Your task to perform on an android device: snooze an email in the gmail app Image 0: 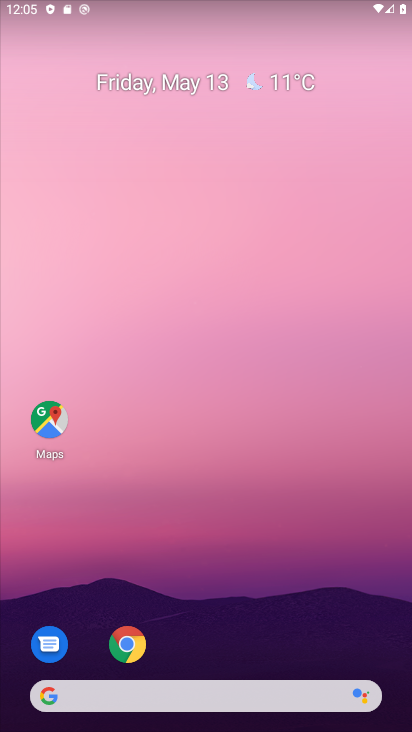
Step 0: drag from (209, 725) to (204, 243)
Your task to perform on an android device: snooze an email in the gmail app Image 1: 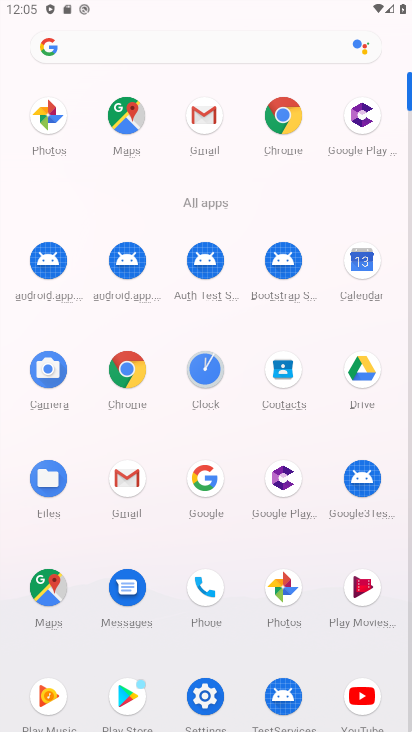
Step 1: click (128, 479)
Your task to perform on an android device: snooze an email in the gmail app Image 2: 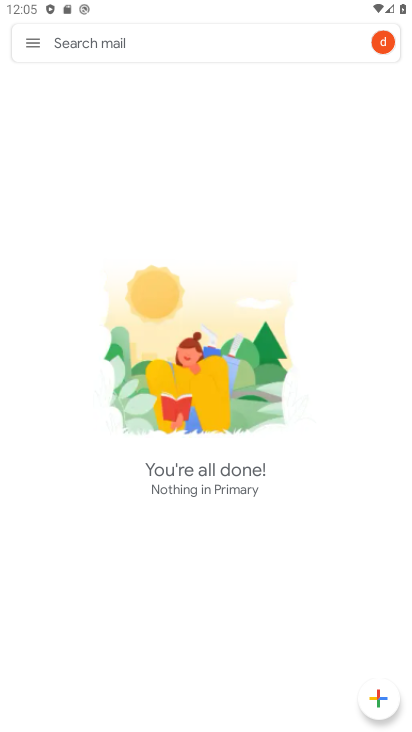
Step 2: click (31, 38)
Your task to perform on an android device: snooze an email in the gmail app Image 3: 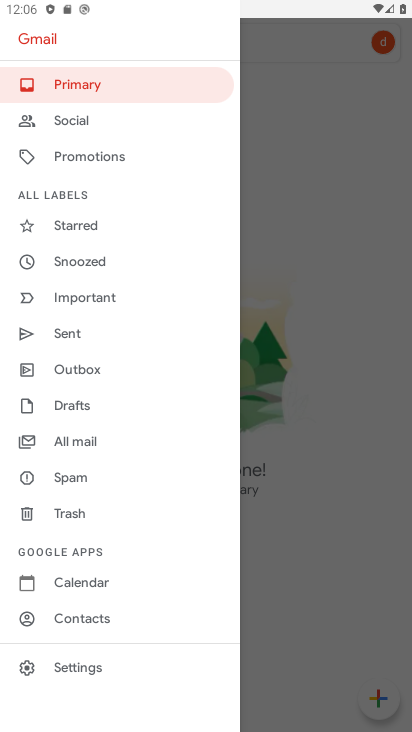
Step 3: drag from (80, 82) to (112, 509)
Your task to perform on an android device: snooze an email in the gmail app Image 4: 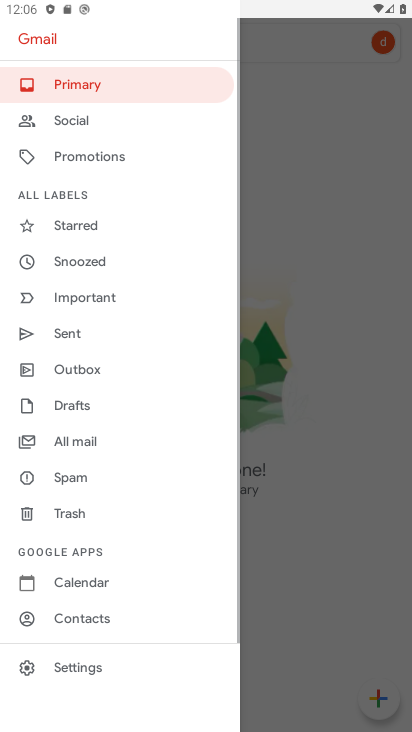
Step 4: click (175, 79)
Your task to perform on an android device: snooze an email in the gmail app Image 5: 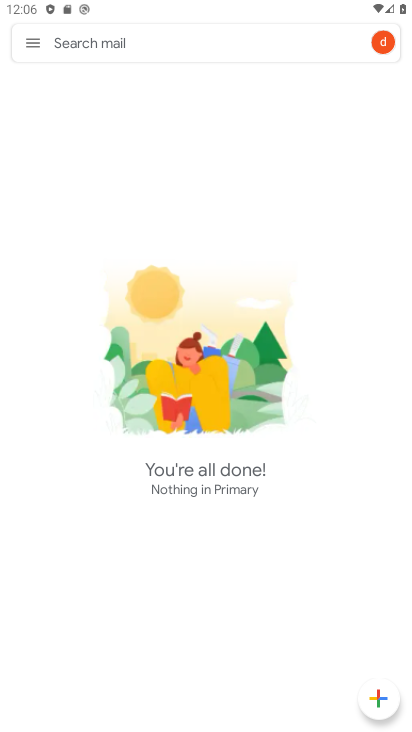
Step 5: task complete